Your task to perform on an android device: Open battery settings Image 0: 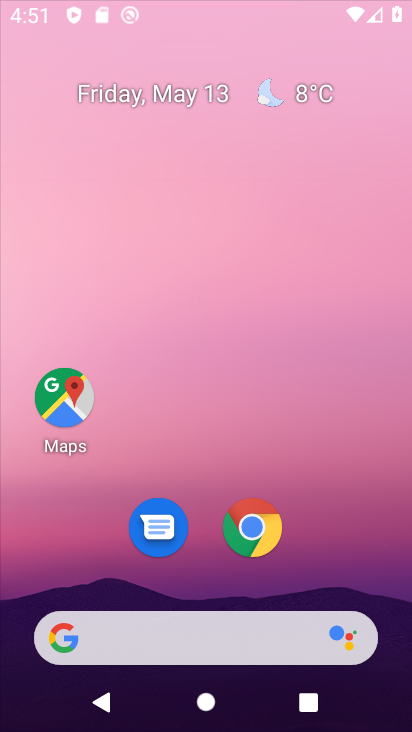
Step 0: press home button
Your task to perform on an android device: Open battery settings Image 1: 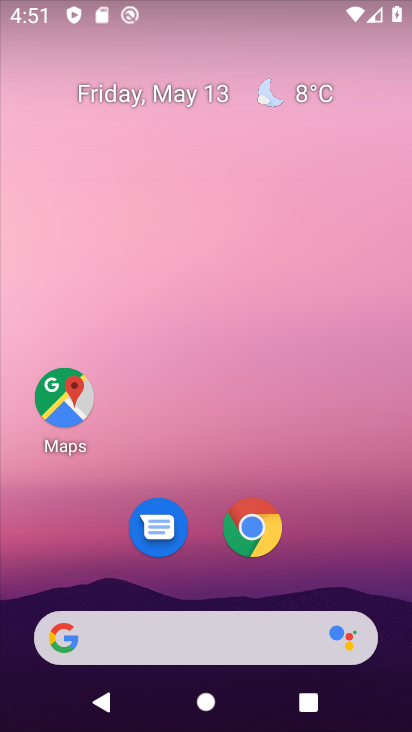
Step 1: drag from (226, 591) to (268, 135)
Your task to perform on an android device: Open battery settings Image 2: 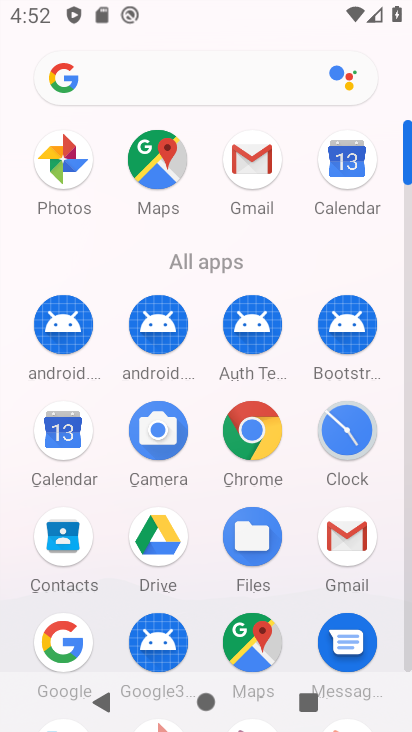
Step 2: drag from (144, 570) to (118, 199)
Your task to perform on an android device: Open battery settings Image 3: 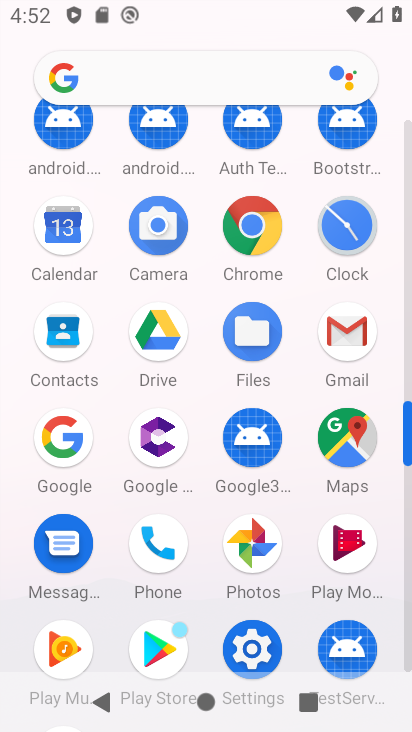
Step 3: click (153, 646)
Your task to perform on an android device: Open battery settings Image 4: 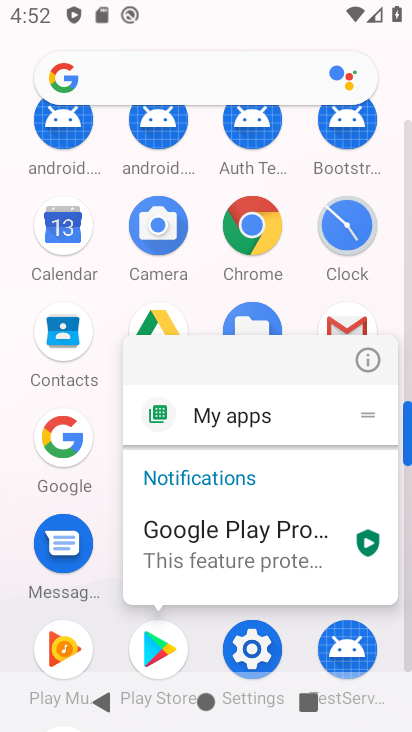
Step 4: click (248, 650)
Your task to perform on an android device: Open battery settings Image 5: 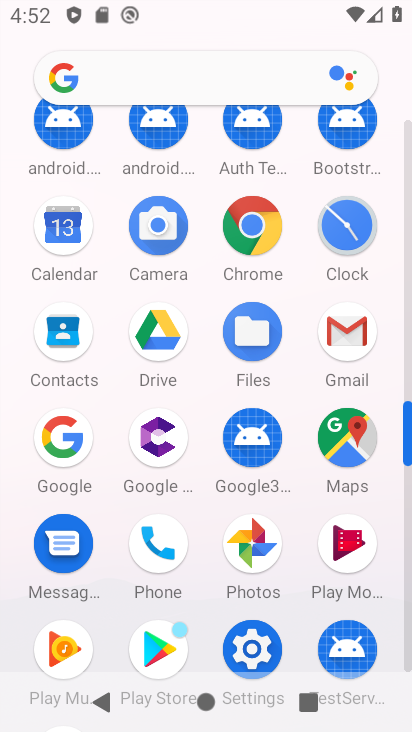
Step 5: click (248, 650)
Your task to perform on an android device: Open battery settings Image 6: 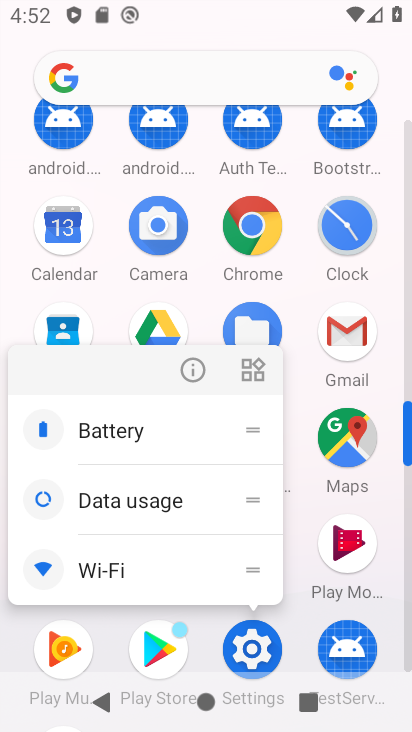
Step 6: click (248, 650)
Your task to perform on an android device: Open battery settings Image 7: 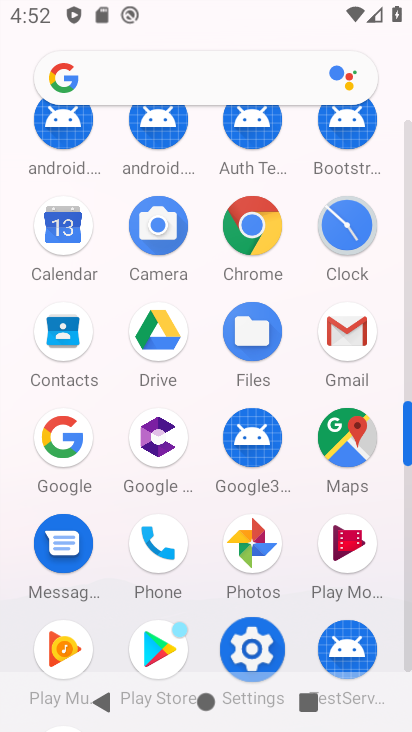
Step 7: click (267, 638)
Your task to perform on an android device: Open battery settings Image 8: 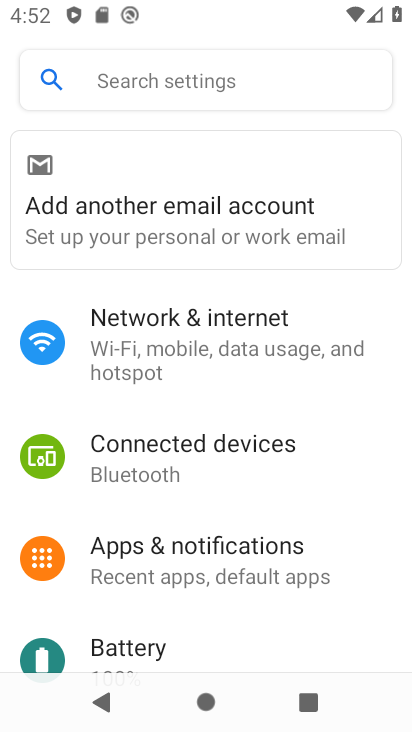
Step 8: drag from (126, 643) to (126, 260)
Your task to perform on an android device: Open battery settings Image 9: 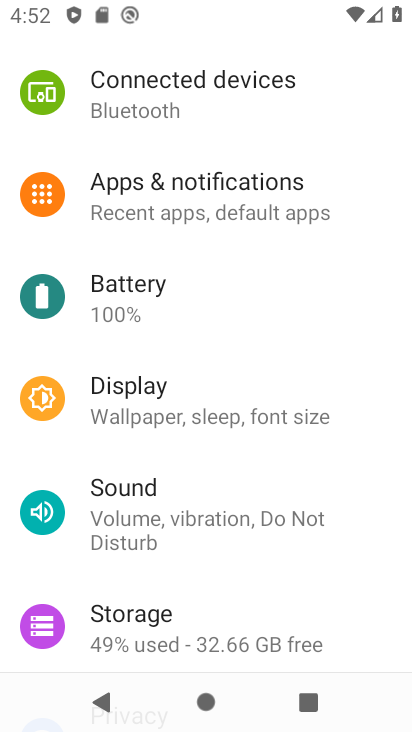
Step 9: click (138, 289)
Your task to perform on an android device: Open battery settings Image 10: 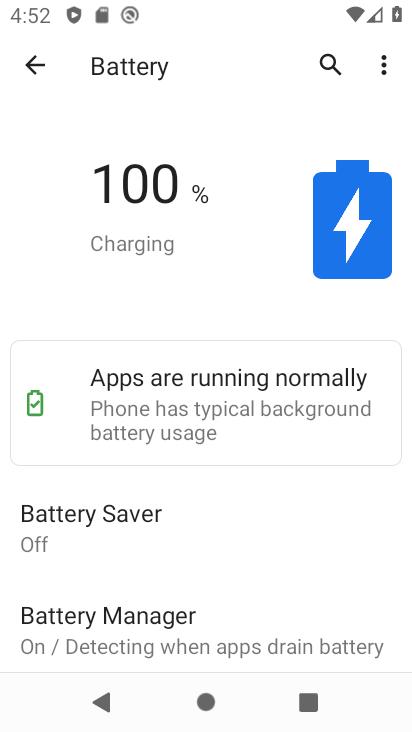
Step 10: task complete